Your task to perform on an android device: Open notification settings Image 0: 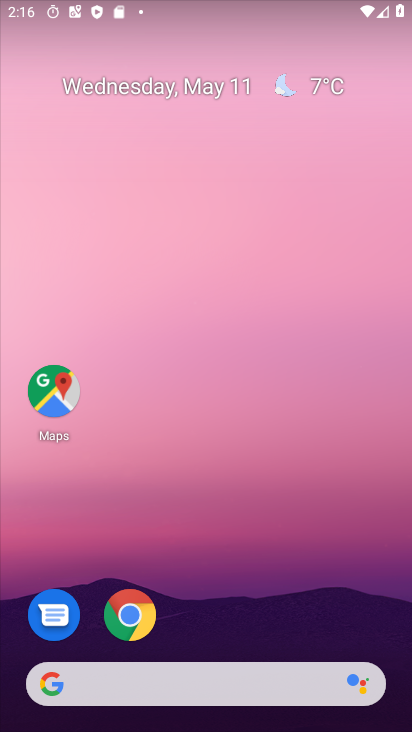
Step 0: drag from (242, 667) to (220, 256)
Your task to perform on an android device: Open notification settings Image 1: 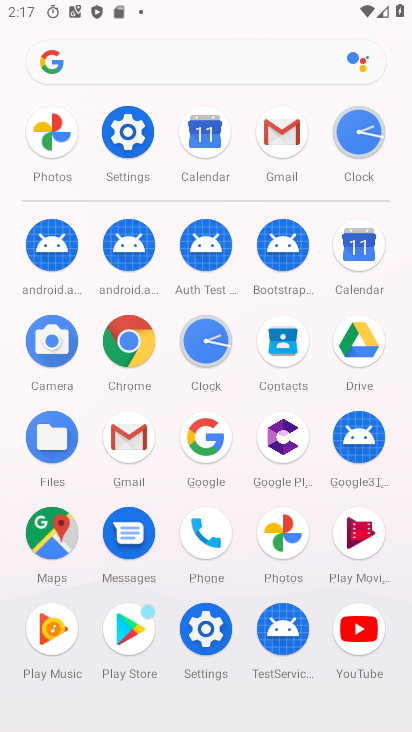
Step 1: click (217, 625)
Your task to perform on an android device: Open notification settings Image 2: 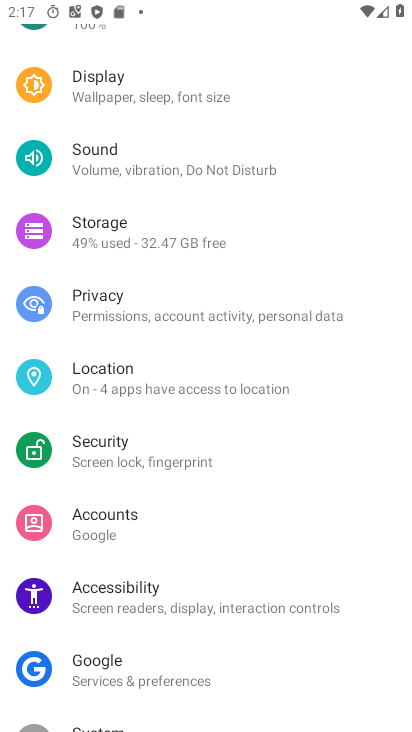
Step 2: drag from (139, 104) to (158, 522)
Your task to perform on an android device: Open notification settings Image 3: 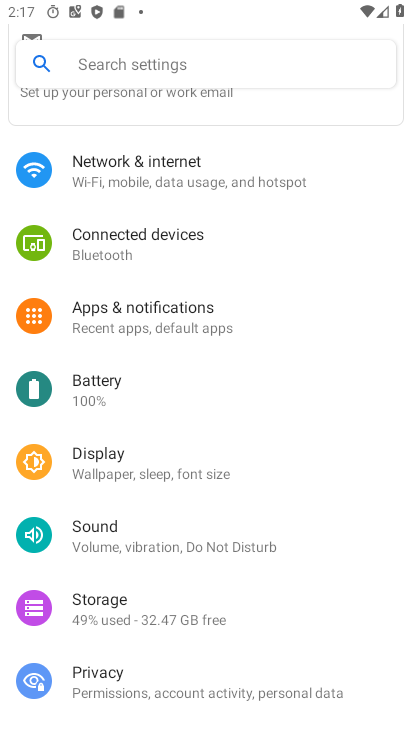
Step 3: click (137, 313)
Your task to perform on an android device: Open notification settings Image 4: 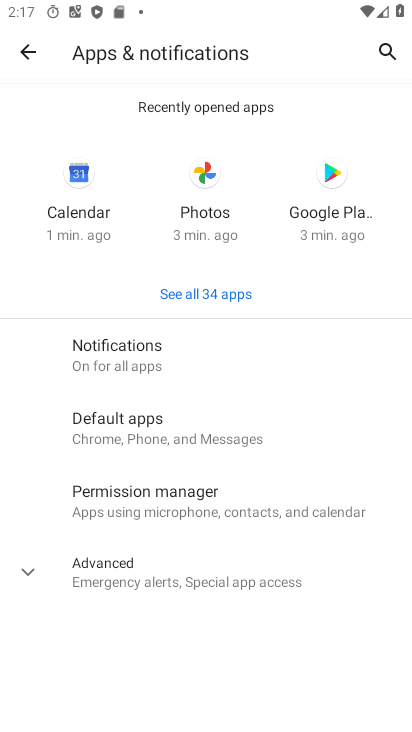
Step 4: task complete